Your task to perform on an android device: Open internet settings Image 0: 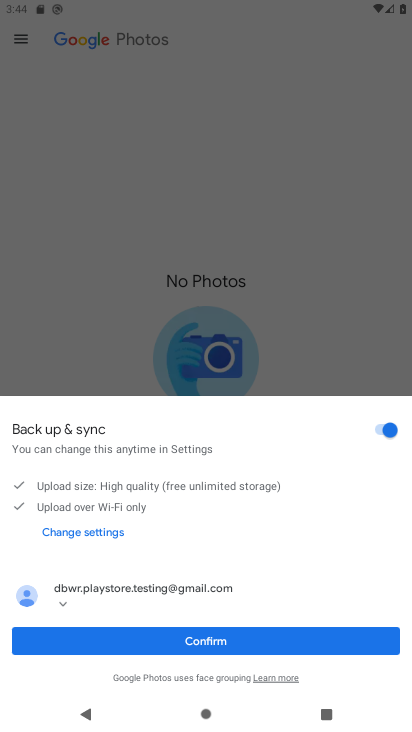
Step 0: press home button
Your task to perform on an android device: Open internet settings Image 1: 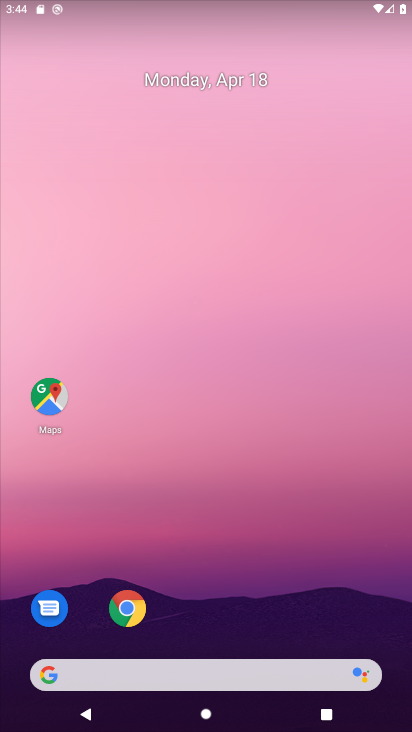
Step 1: drag from (337, 626) to (305, 6)
Your task to perform on an android device: Open internet settings Image 2: 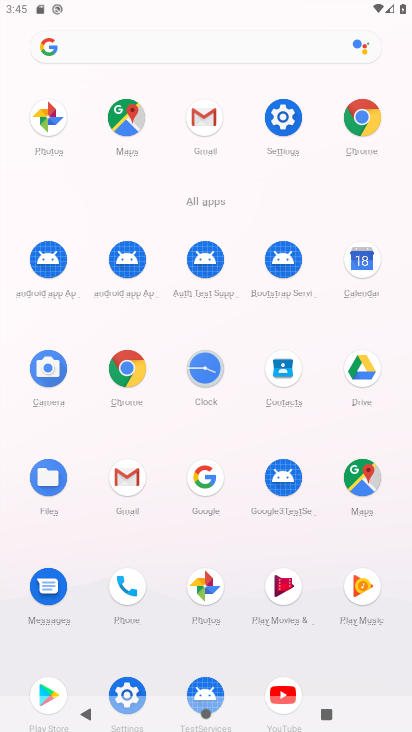
Step 2: click (277, 117)
Your task to perform on an android device: Open internet settings Image 3: 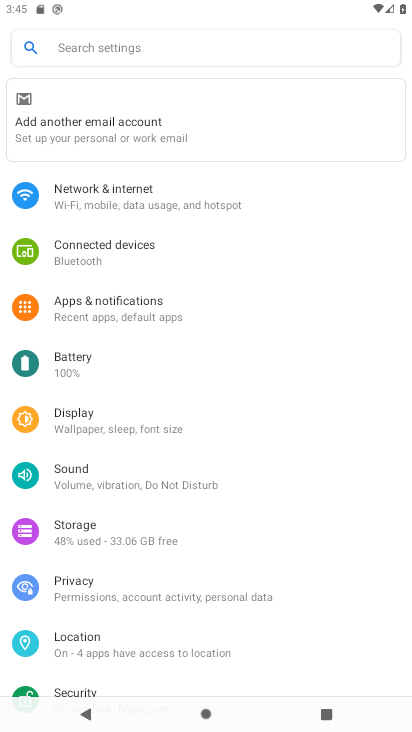
Step 3: click (78, 191)
Your task to perform on an android device: Open internet settings Image 4: 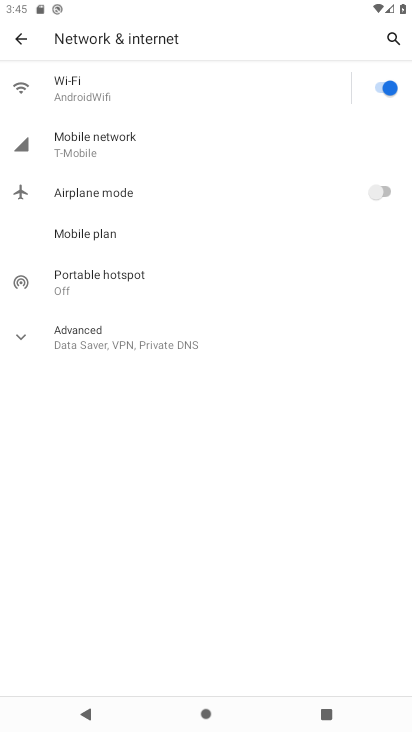
Step 4: click (72, 140)
Your task to perform on an android device: Open internet settings Image 5: 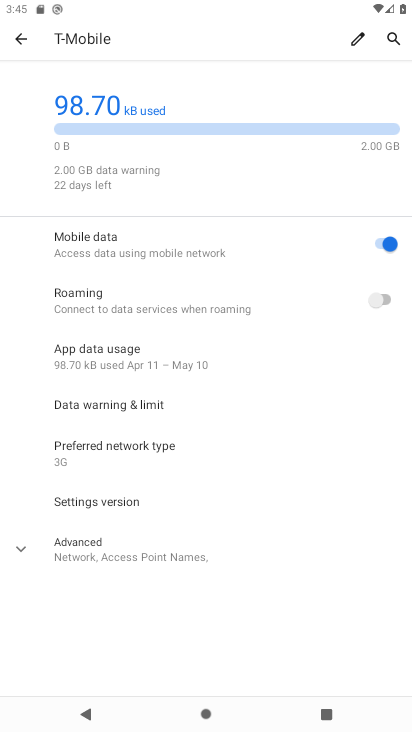
Step 5: click (16, 34)
Your task to perform on an android device: Open internet settings Image 6: 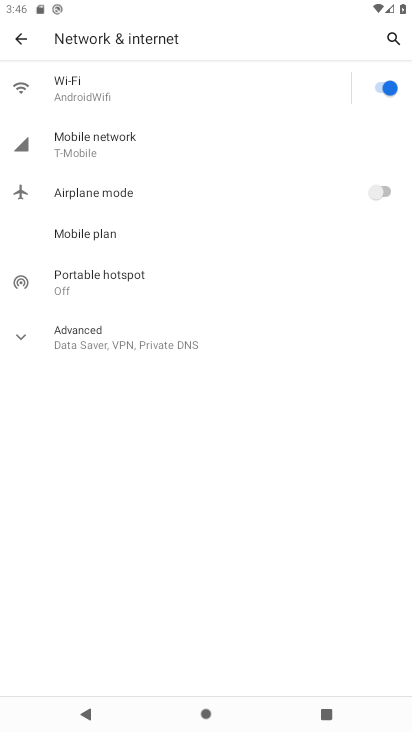
Step 6: task complete